Your task to perform on an android device: turn off priority inbox in the gmail app Image 0: 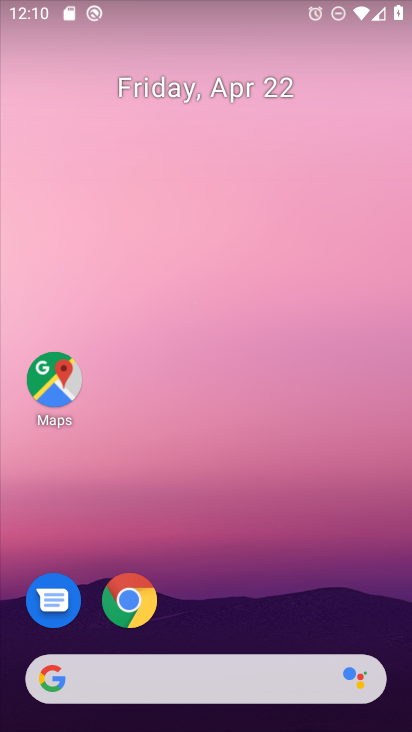
Step 0: drag from (235, 565) to (230, 0)
Your task to perform on an android device: turn off priority inbox in the gmail app Image 1: 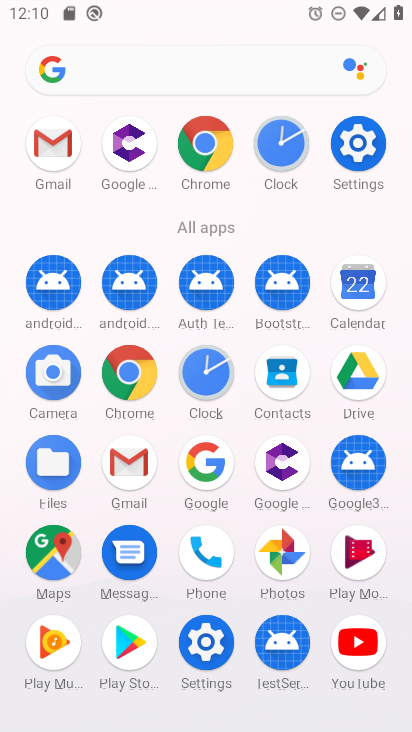
Step 1: click (54, 140)
Your task to perform on an android device: turn off priority inbox in the gmail app Image 2: 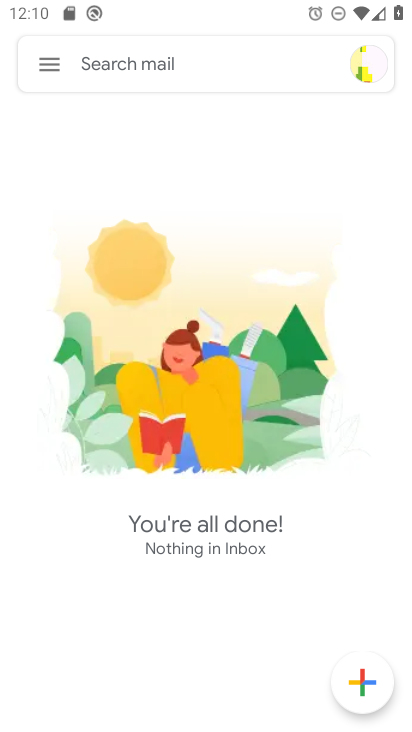
Step 2: click (58, 63)
Your task to perform on an android device: turn off priority inbox in the gmail app Image 3: 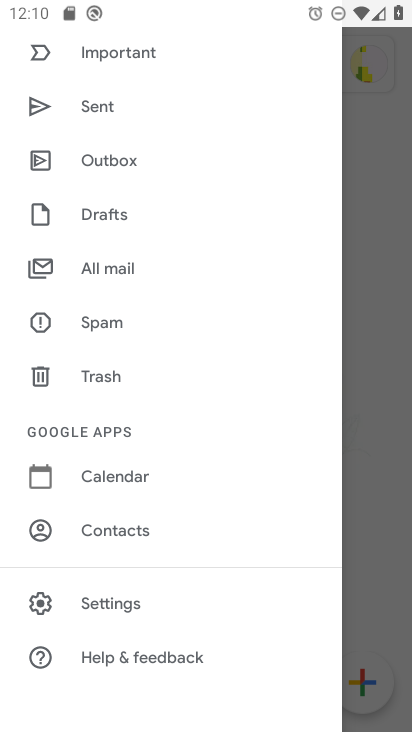
Step 3: click (121, 600)
Your task to perform on an android device: turn off priority inbox in the gmail app Image 4: 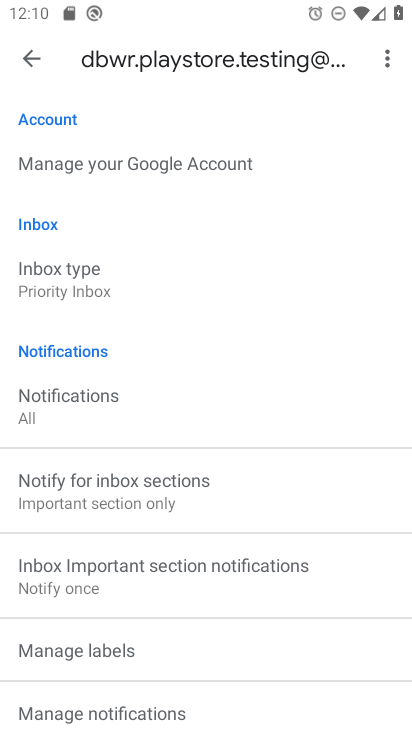
Step 4: click (81, 290)
Your task to perform on an android device: turn off priority inbox in the gmail app Image 5: 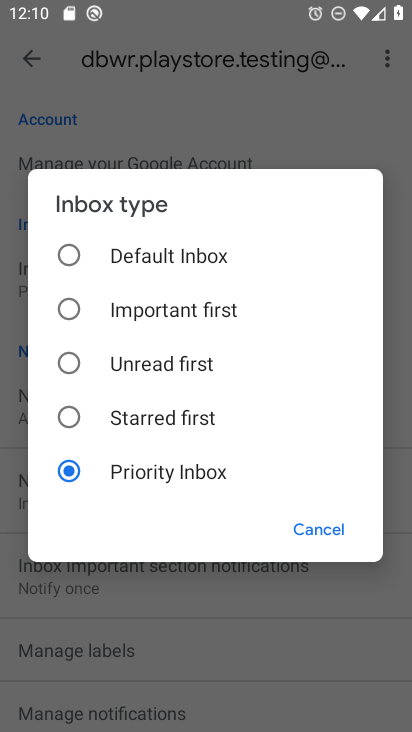
Step 5: click (73, 253)
Your task to perform on an android device: turn off priority inbox in the gmail app Image 6: 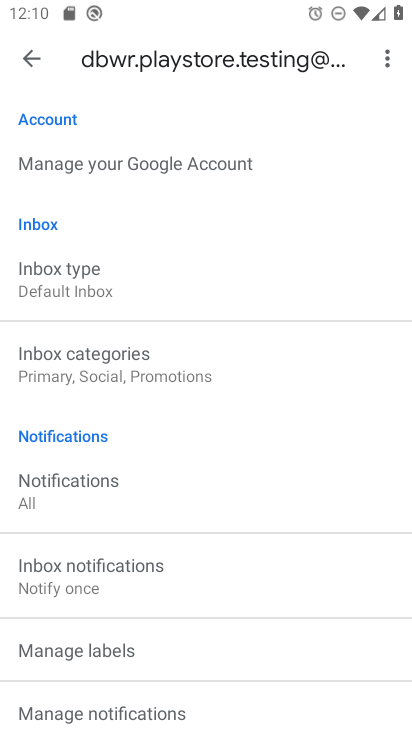
Step 6: task complete